Your task to perform on an android device: toggle sleep mode Image 0: 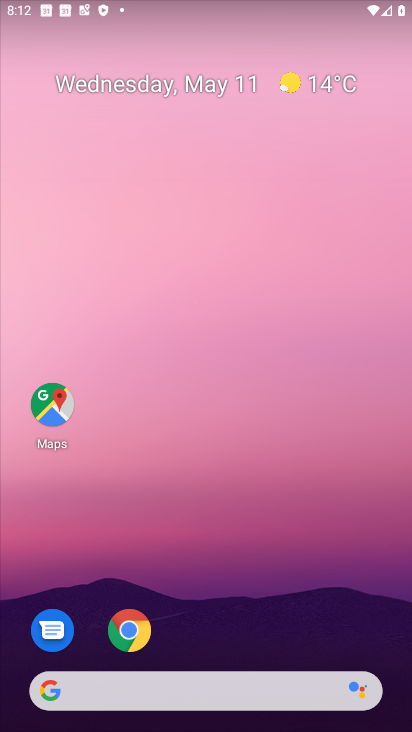
Step 0: drag from (232, 659) to (128, 140)
Your task to perform on an android device: toggle sleep mode Image 1: 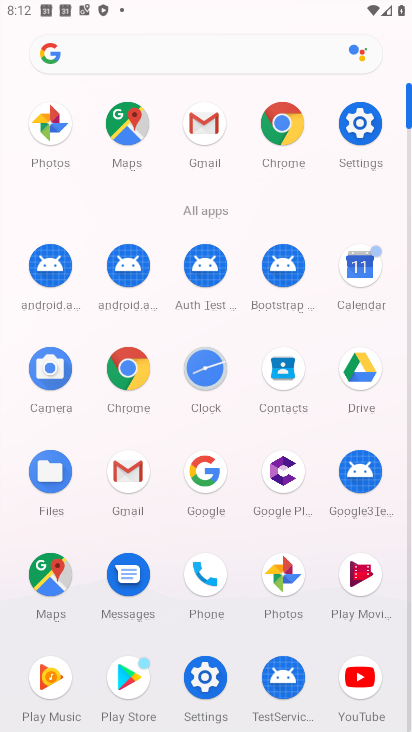
Step 1: click (360, 116)
Your task to perform on an android device: toggle sleep mode Image 2: 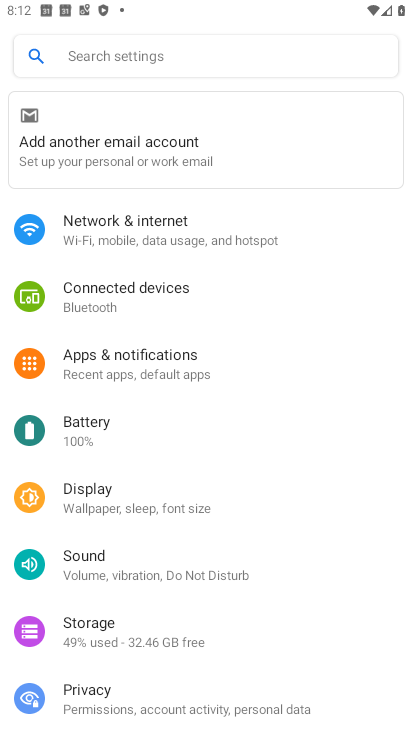
Step 2: click (135, 507)
Your task to perform on an android device: toggle sleep mode Image 3: 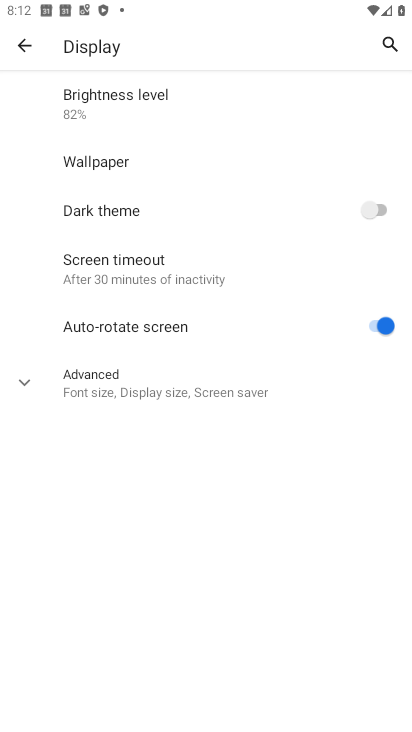
Step 3: click (151, 393)
Your task to perform on an android device: toggle sleep mode Image 4: 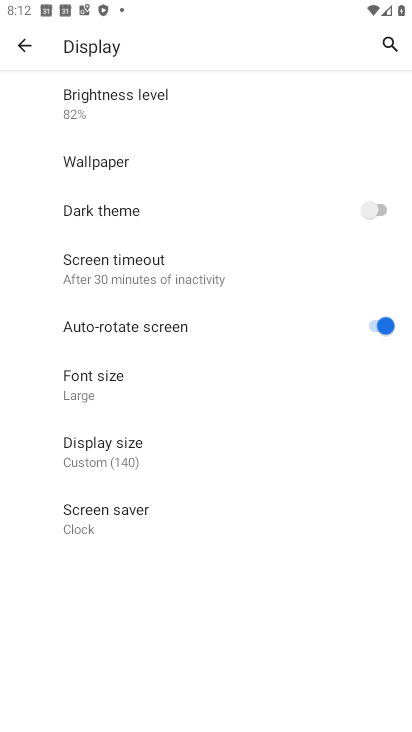
Step 4: task complete